Your task to perform on an android device: allow notifications from all sites in the chrome app Image 0: 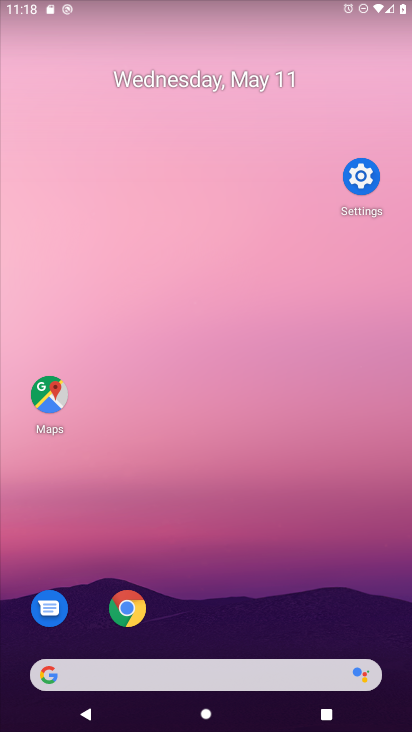
Step 0: drag from (257, 596) to (73, 213)
Your task to perform on an android device: allow notifications from all sites in the chrome app Image 1: 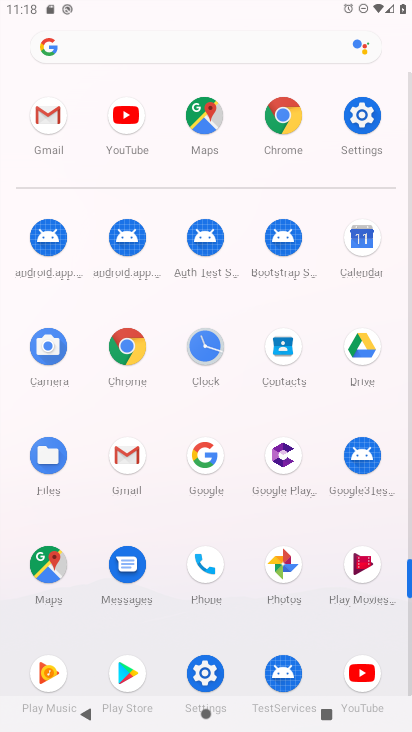
Step 1: click (289, 124)
Your task to perform on an android device: allow notifications from all sites in the chrome app Image 2: 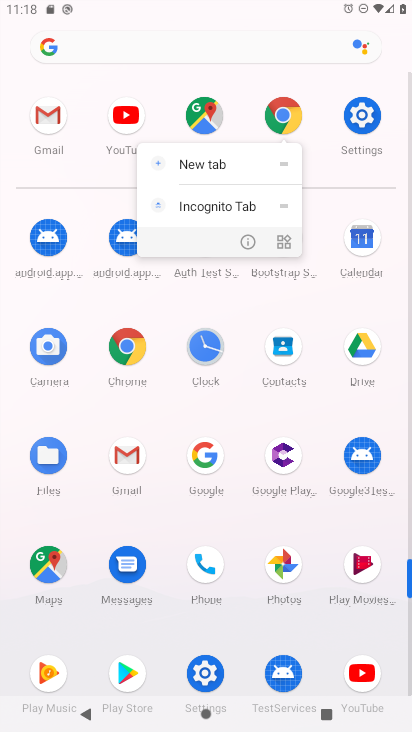
Step 2: click (289, 124)
Your task to perform on an android device: allow notifications from all sites in the chrome app Image 3: 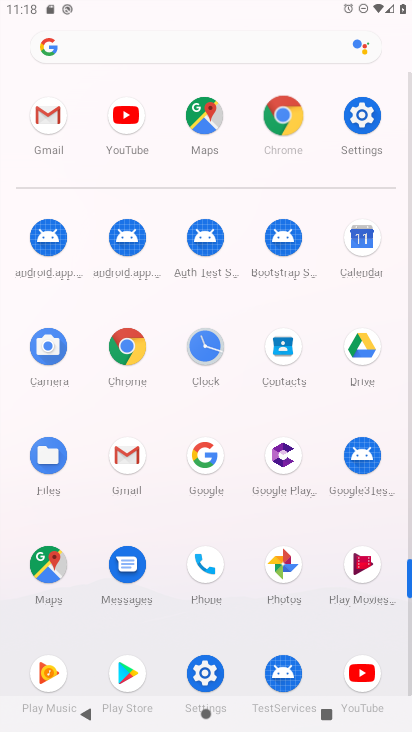
Step 3: click (289, 124)
Your task to perform on an android device: allow notifications from all sites in the chrome app Image 4: 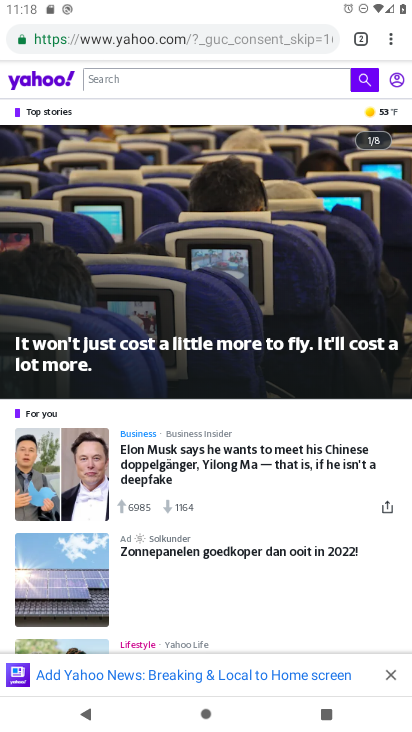
Step 4: drag from (389, 43) to (245, 474)
Your task to perform on an android device: allow notifications from all sites in the chrome app Image 5: 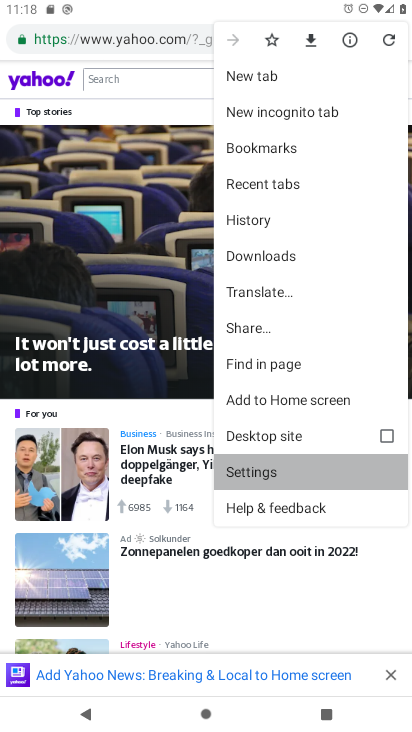
Step 5: click (246, 475)
Your task to perform on an android device: allow notifications from all sites in the chrome app Image 6: 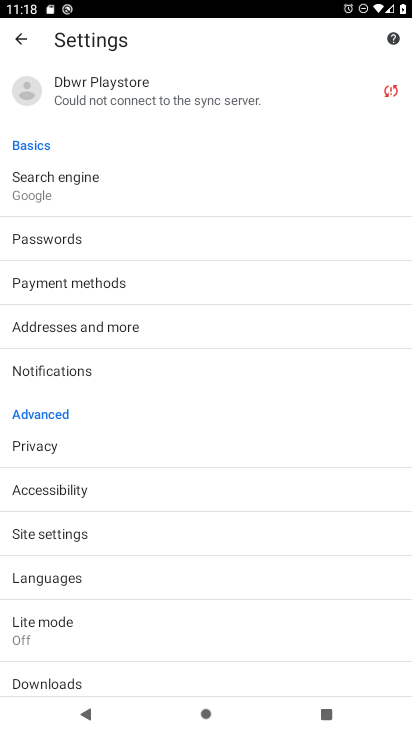
Step 6: click (54, 529)
Your task to perform on an android device: allow notifications from all sites in the chrome app Image 7: 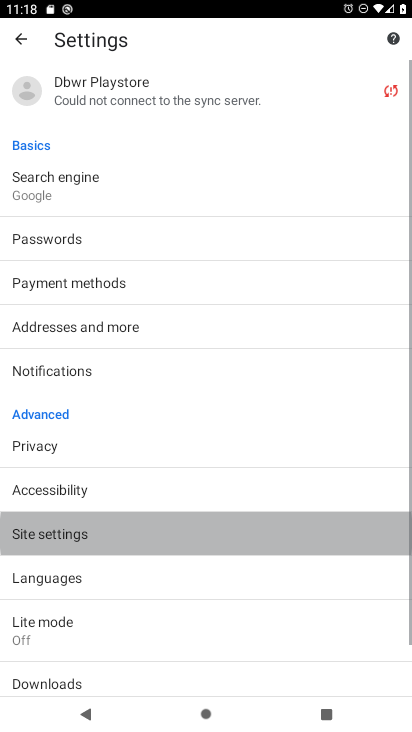
Step 7: click (55, 528)
Your task to perform on an android device: allow notifications from all sites in the chrome app Image 8: 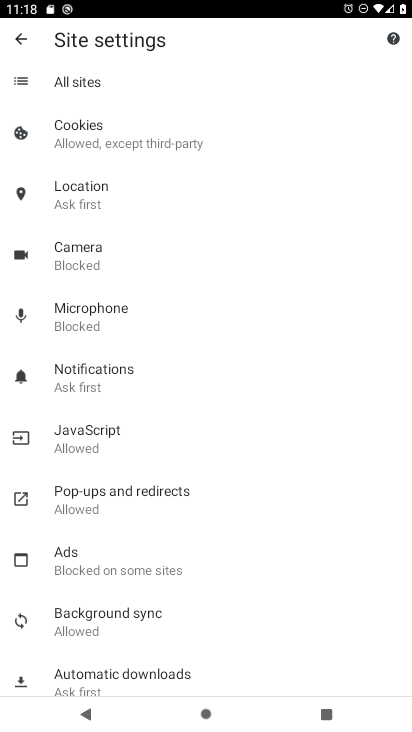
Step 8: drag from (103, 638) to (17, 121)
Your task to perform on an android device: allow notifications from all sites in the chrome app Image 9: 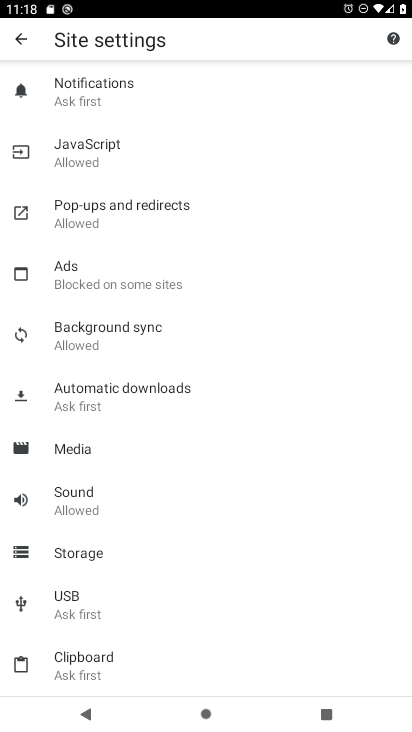
Step 9: drag from (105, 571) to (37, 149)
Your task to perform on an android device: allow notifications from all sites in the chrome app Image 10: 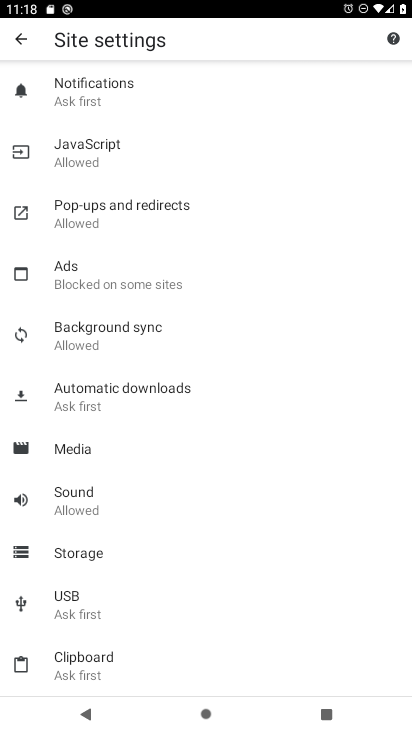
Step 10: drag from (80, 264) to (152, 715)
Your task to perform on an android device: allow notifications from all sites in the chrome app Image 11: 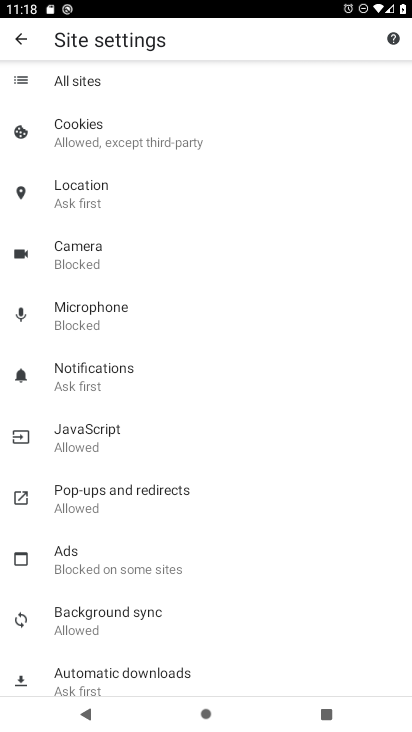
Step 11: drag from (56, 605) to (80, 731)
Your task to perform on an android device: allow notifications from all sites in the chrome app Image 12: 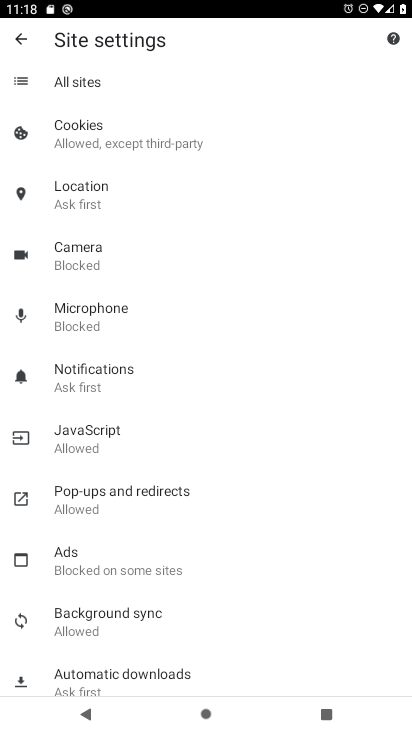
Step 12: drag from (63, 472) to (82, 568)
Your task to perform on an android device: allow notifications from all sites in the chrome app Image 13: 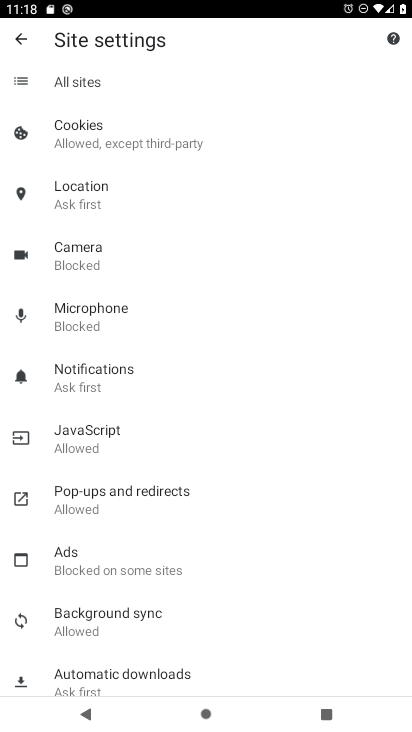
Step 13: drag from (80, 348) to (123, 612)
Your task to perform on an android device: allow notifications from all sites in the chrome app Image 14: 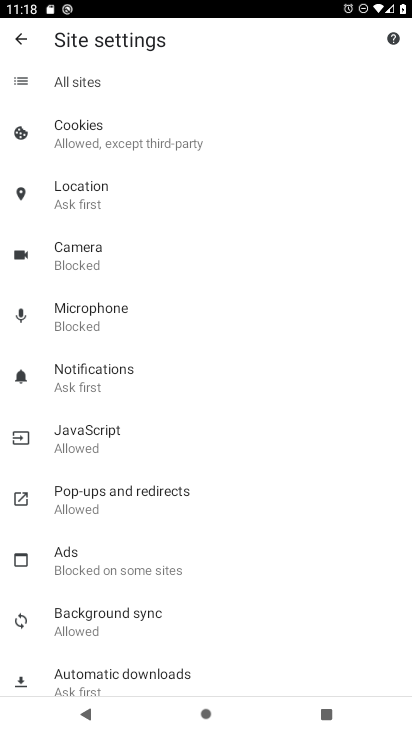
Step 14: drag from (129, 355) to (187, 639)
Your task to perform on an android device: allow notifications from all sites in the chrome app Image 15: 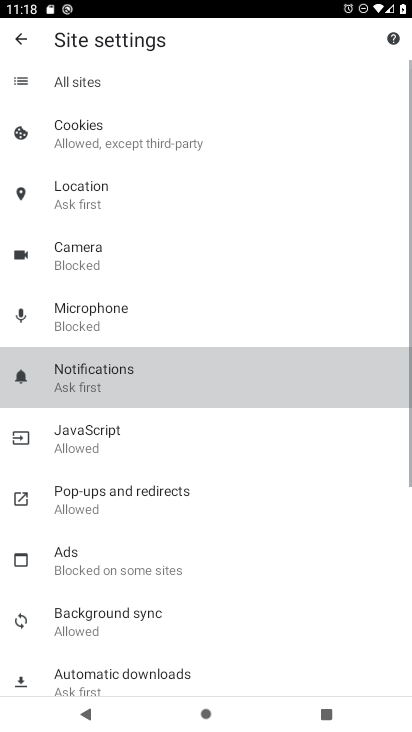
Step 15: drag from (144, 344) to (188, 628)
Your task to perform on an android device: allow notifications from all sites in the chrome app Image 16: 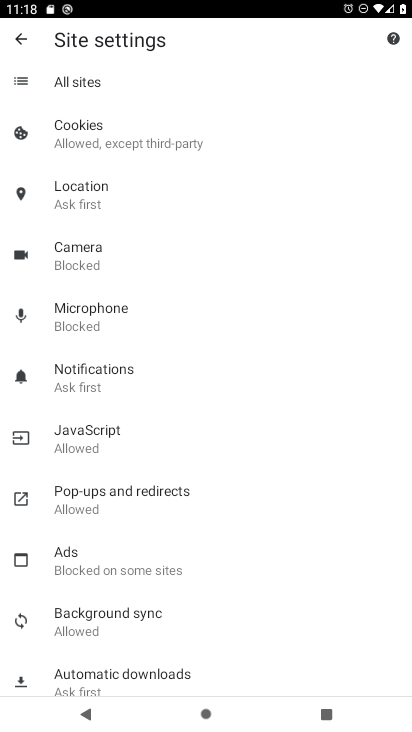
Step 16: click (72, 78)
Your task to perform on an android device: allow notifications from all sites in the chrome app Image 17: 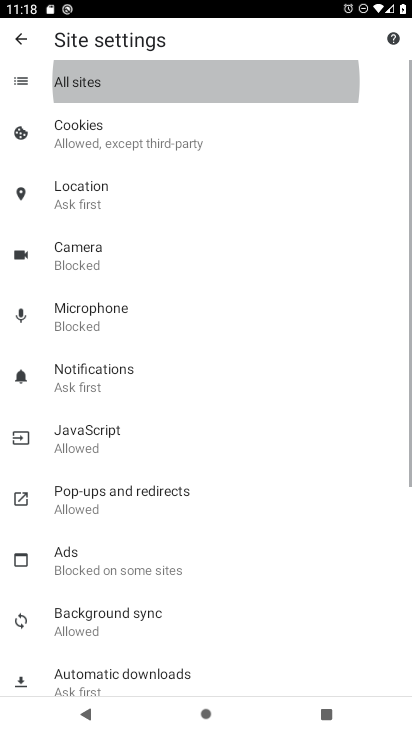
Step 17: click (72, 78)
Your task to perform on an android device: allow notifications from all sites in the chrome app Image 18: 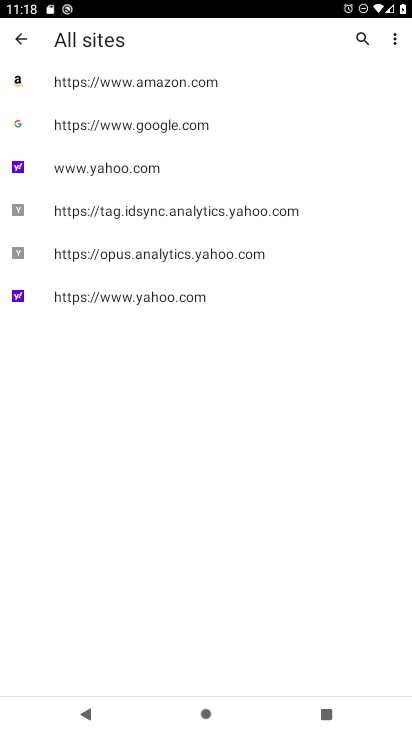
Step 18: click (101, 81)
Your task to perform on an android device: allow notifications from all sites in the chrome app Image 19: 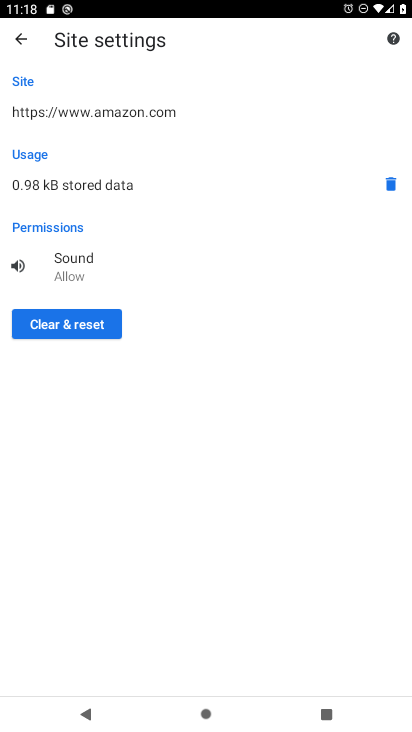
Step 19: click (20, 41)
Your task to perform on an android device: allow notifications from all sites in the chrome app Image 20: 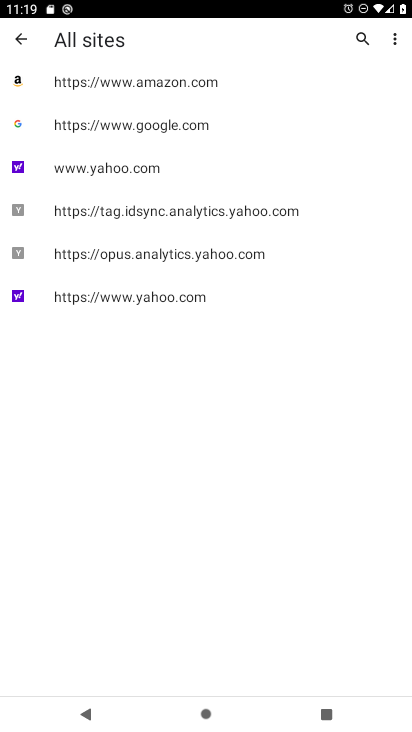
Step 20: click (153, 83)
Your task to perform on an android device: allow notifications from all sites in the chrome app Image 21: 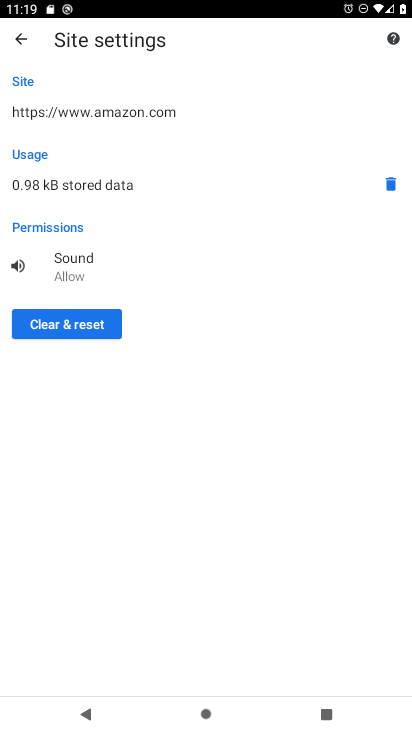
Step 21: click (105, 115)
Your task to perform on an android device: allow notifications from all sites in the chrome app Image 22: 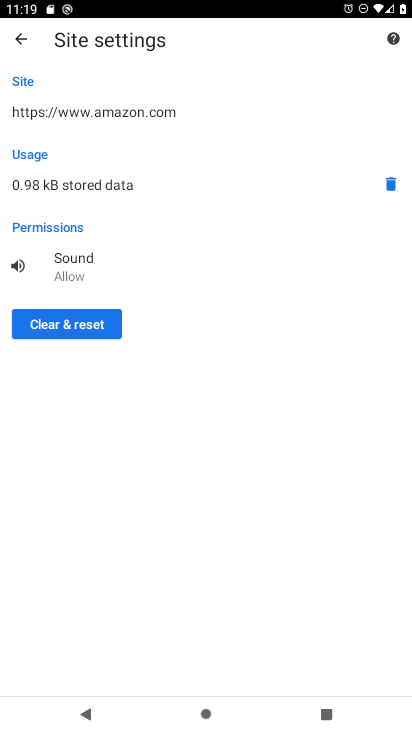
Step 22: click (110, 107)
Your task to perform on an android device: allow notifications from all sites in the chrome app Image 23: 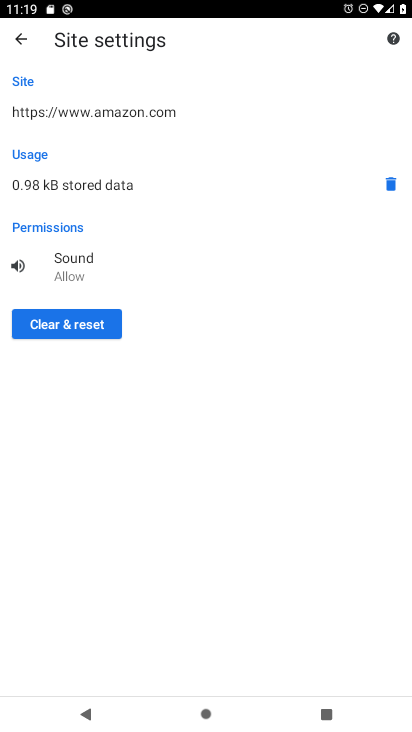
Step 23: click (111, 106)
Your task to perform on an android device: allow notifications from all sites in the chrome app Image 24: 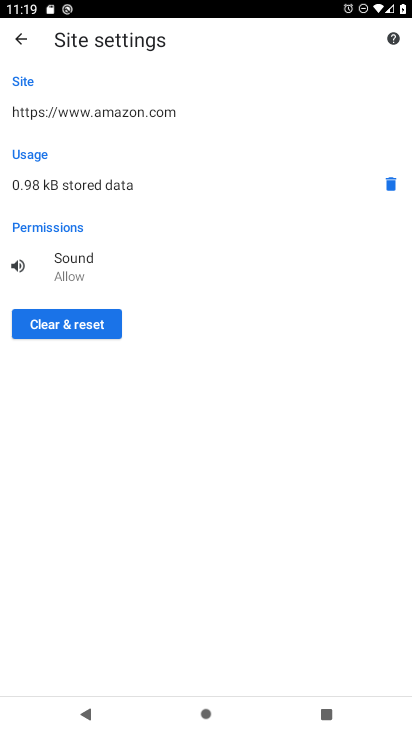
Step 24: click (111, 106)
Your task to perform on an android device: allow notifications from all sites in the chrome app Image 25: 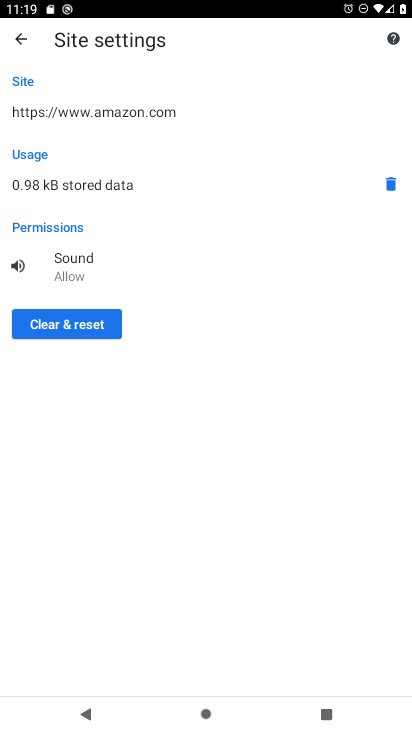
Step 25: click (121, 115)
Your task to perform on an android device: allow notifications from all sites in the chrome app Image 26: 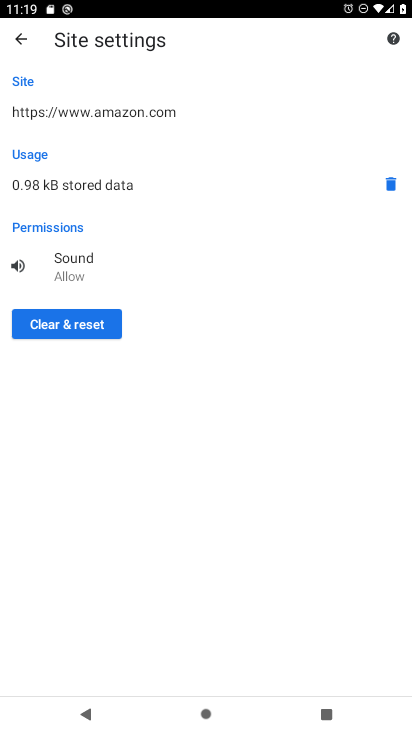
Step 26: click (121, 115)
Your task to perform on an android device: allow notifications from all sites in the chrome app Image 27: 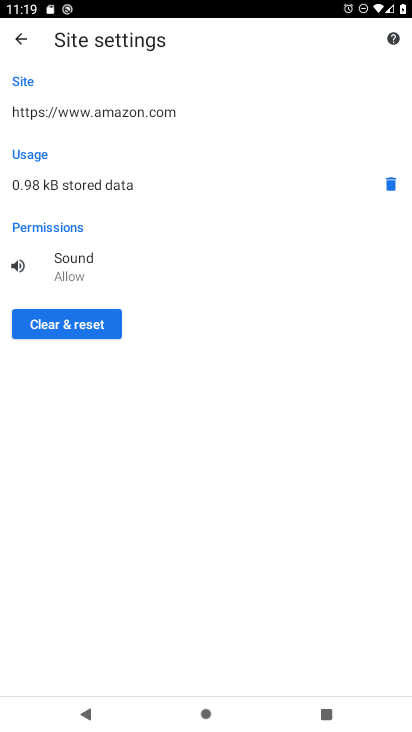
Step 27: click (123, 117)
Your task to perform on an android device: allow notifications from all sites in the chrome app Image 28: 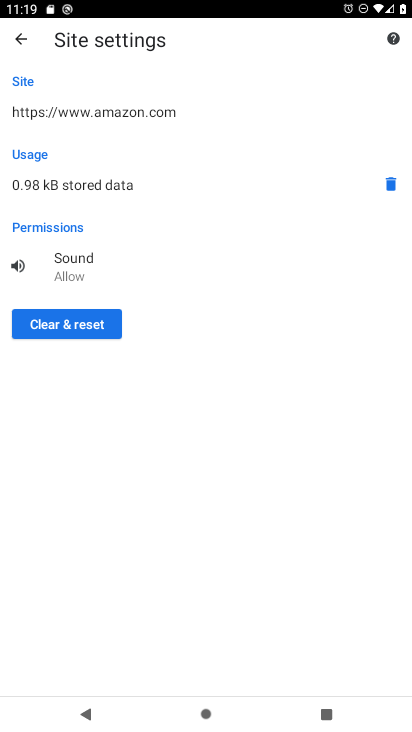
Step 28: click (122, 128)
Your task to perform on an android device: allow notifications from all sites in the chrome app Image 29: 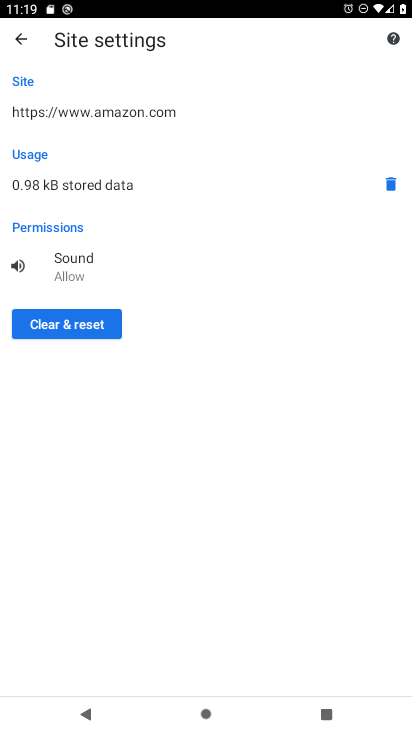
Step 29: click (118, 140)
Your task to perform on an android device: allow notifications from all sites in the chrome app Image 30: 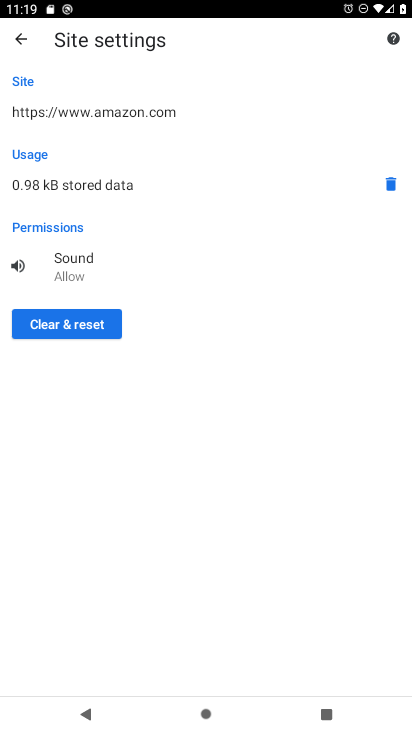
Step 30: click (118, 140)
Your task to perform on an android device: allow notifications from all sites in the chrome app Image 31: 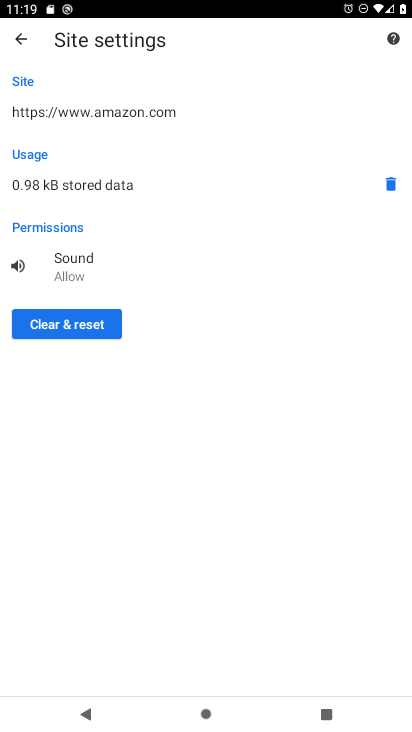
Step 31: press home button
Your task to perform on an android device: allow notifications from all sites in the chrome app Image 32: 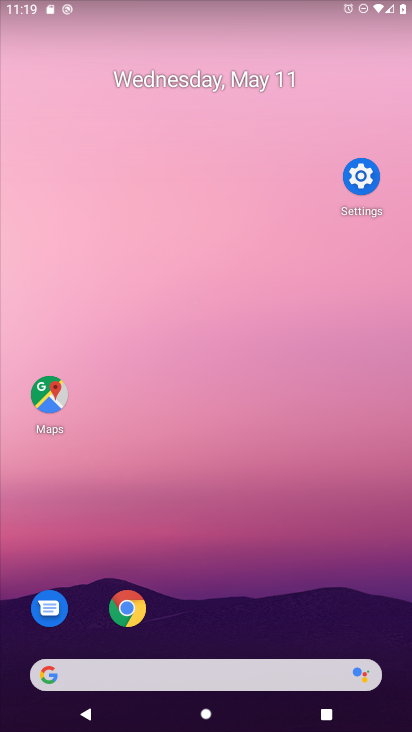
Step 32: drag from (322, 554) to (31, 3)
Your task to perform on an android device: allow notifications from all sites in the chrome app Image 33: 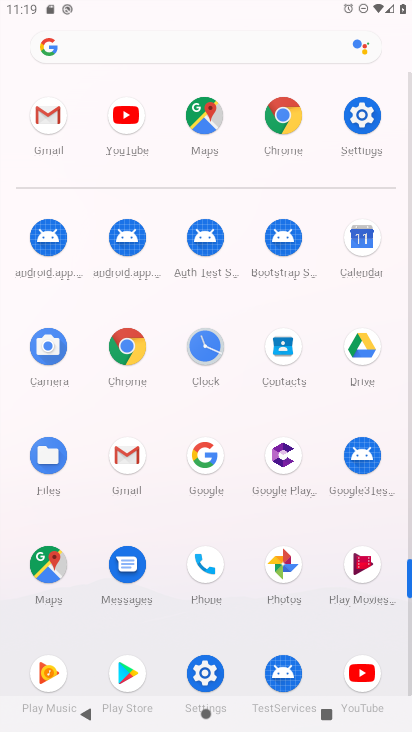
Step 33: click (283, 106)
Your task to perform on an android device: allow notifications from all sites in the chrome app Image 34: 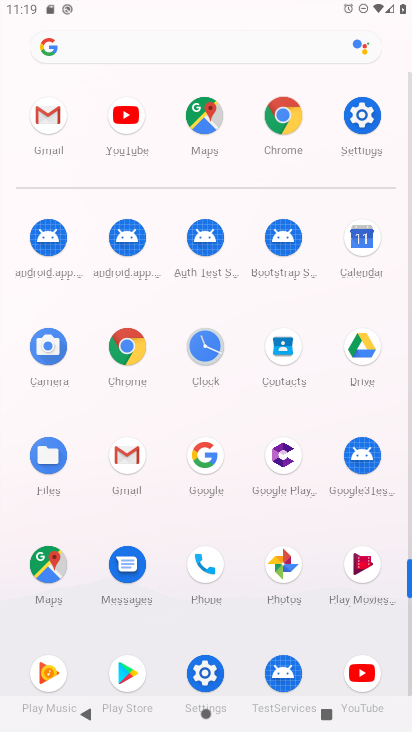
Step 34: click (283, 106)
Your task to perform on an android device: allow notifications from all sites in the chrome app Image 35: 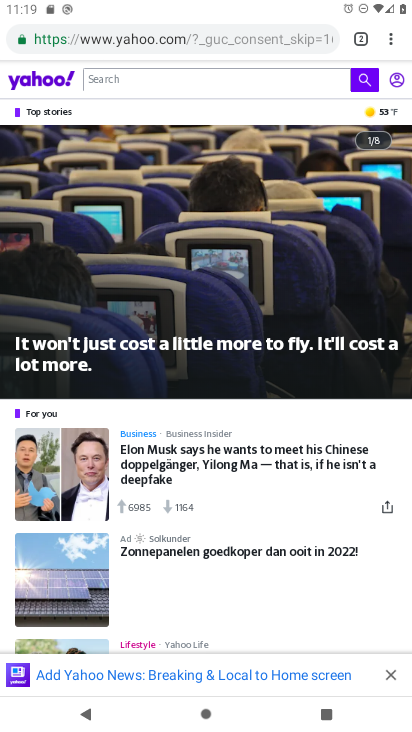
Step 35: drag from (383, 39) to (254, 474)
Your task to perform on an android device: allow notifications from all sites in the chrome app Image 36: 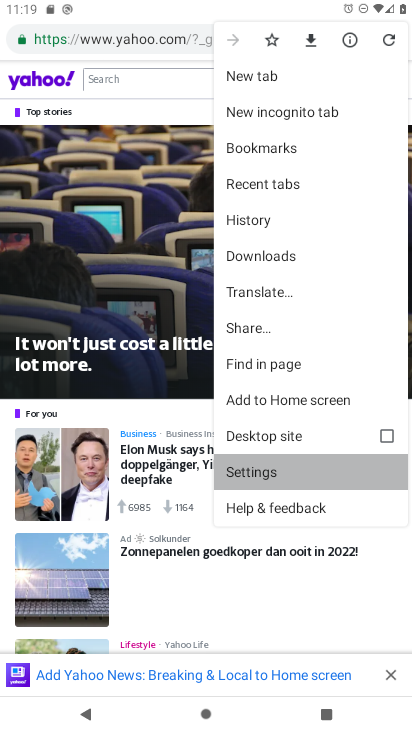
Step 36: click (254, 474)
Your task to perform on an android device: allow notifications from all sites in the chrome app Image 37: 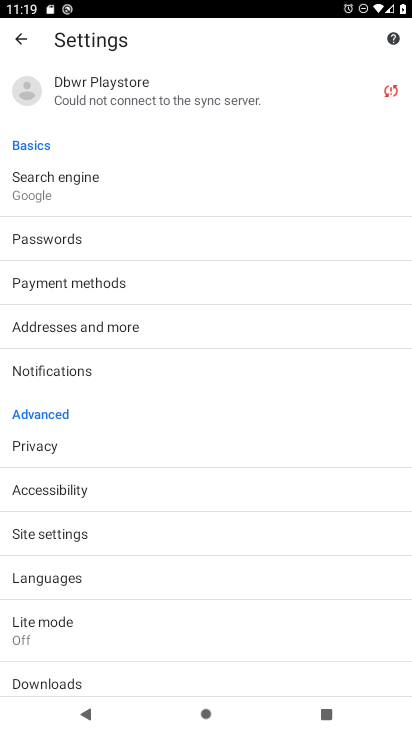
Step 37: click (43, 529)
Your task to perform on an android device: allow notifications from all sites in the chrome app Image 38: 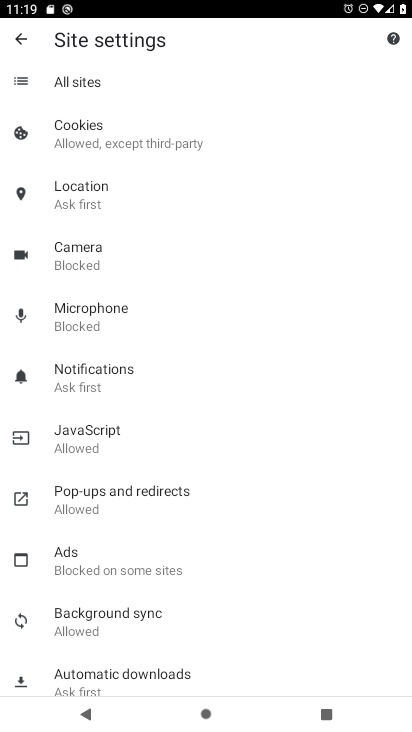
Step 38: click (85, 69)
Your task to perform on an android device: allow notifications from all sites in the chrome app Image 39: 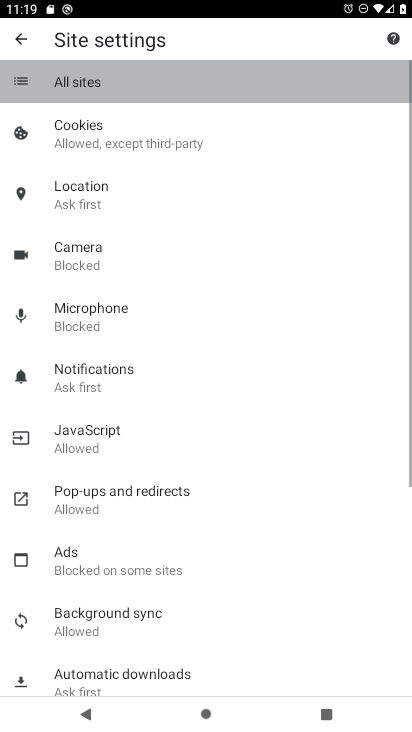
Step 39: click (92, 80)
Your task to perform on an android device: allow notifications from all sites in the chrome app Image 40: 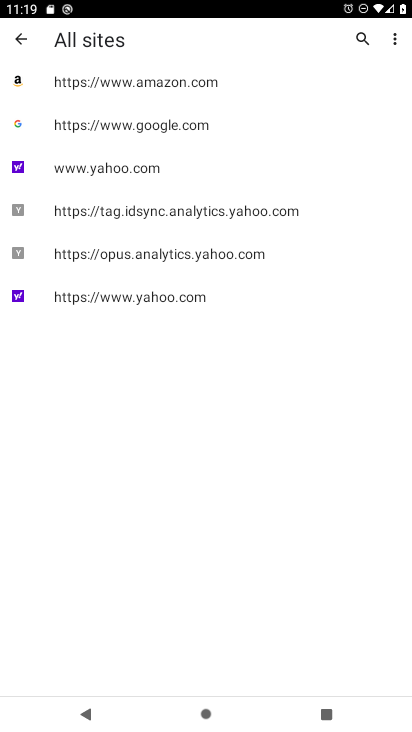
Step 40: click (112, 128)
Your task to perform on an android device: allow notifications from all sites in the chrome app Image 41: 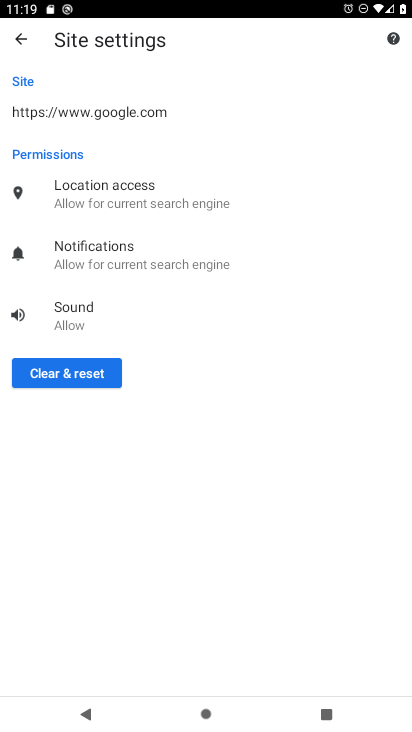
Step 41: click (59, 103)
Your task to perform on an android device: allow notifications from all sites in the chrome app Image 42: 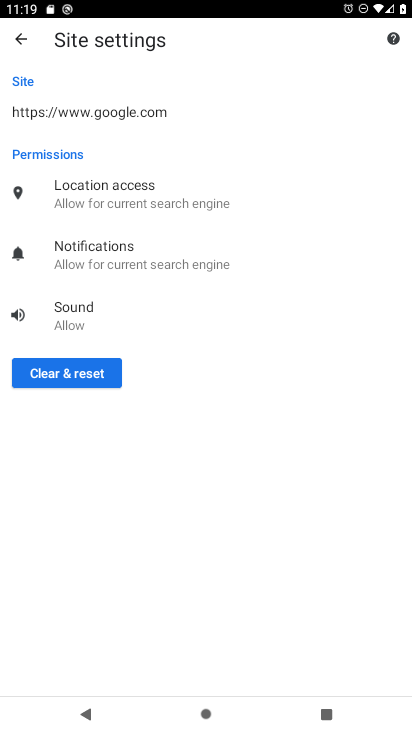
Step 42: click (110, 253)
Your task to perform on an android device: allow notifications from all sites in the chrome app Image 43: 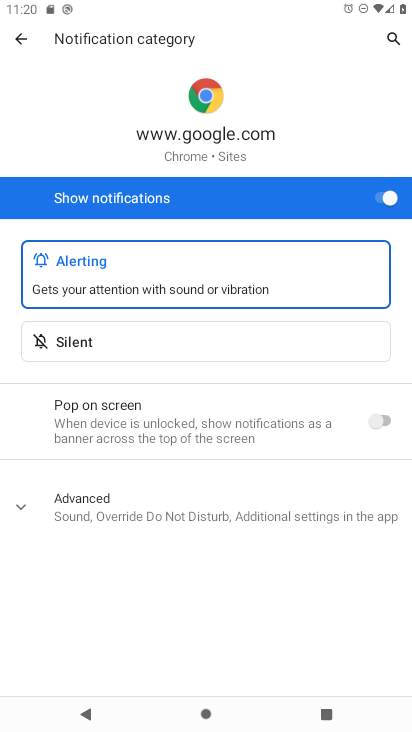
Step 43: task complete